Your task to perform on an android device: Go to battery settings Image 0: 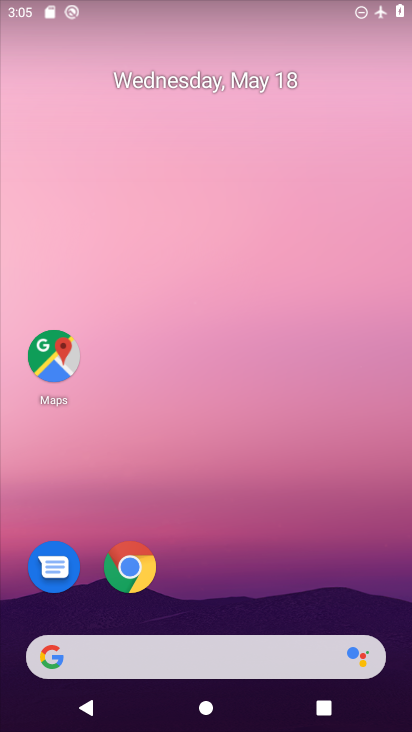
Step 0: drag from (214, 552) to (216, 264)
Your task to perform on an android device: Go to battery settings Image 1: 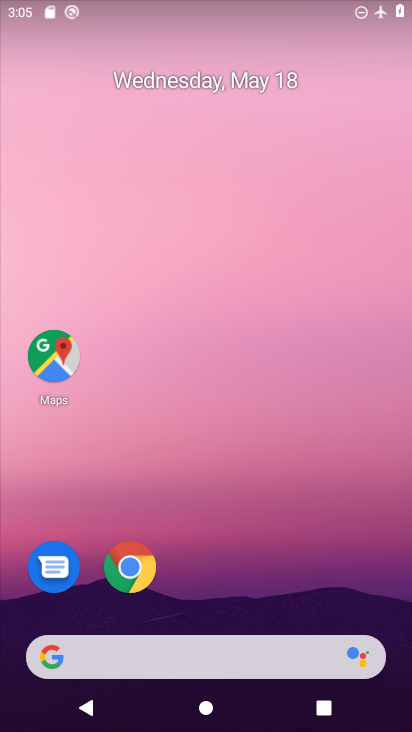
Step 1: drag from (266, 585) to (237, 160)
Your task to perform on an android device: Go to battery settings Image 2: 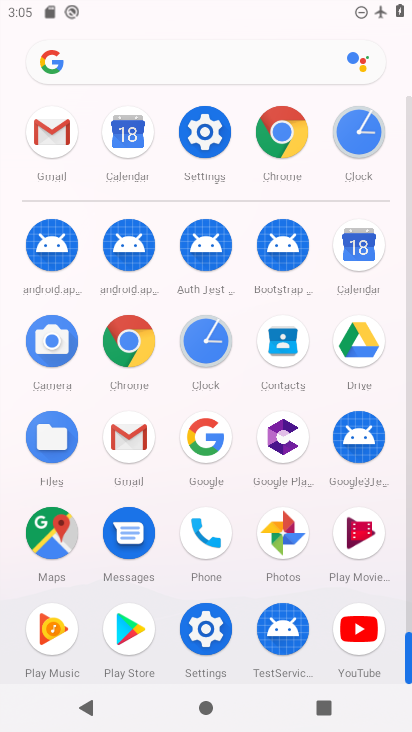
Step 2: click (202, 124)
Your task to perform on an android device: Go to battery settings Image 3: 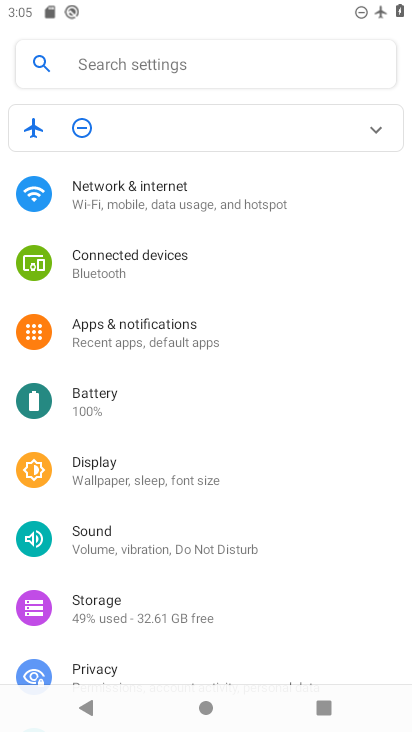
Step 3: click (148, 399)
Your task to perform on an android device: Go to battery settings Image 4: 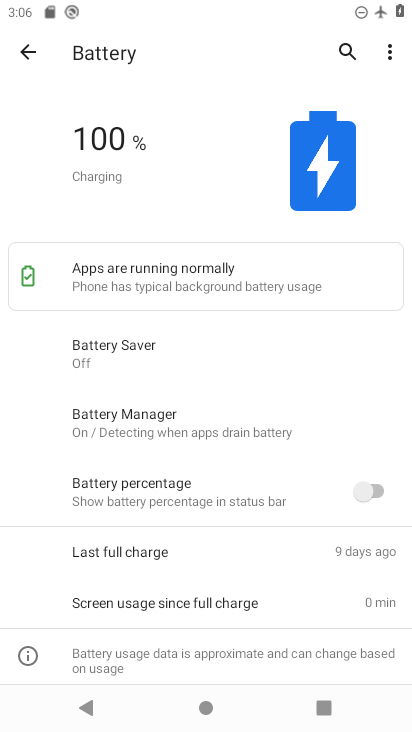
Step 4: task complete